Your task to perform on an android device: Open notification settings Image 0: 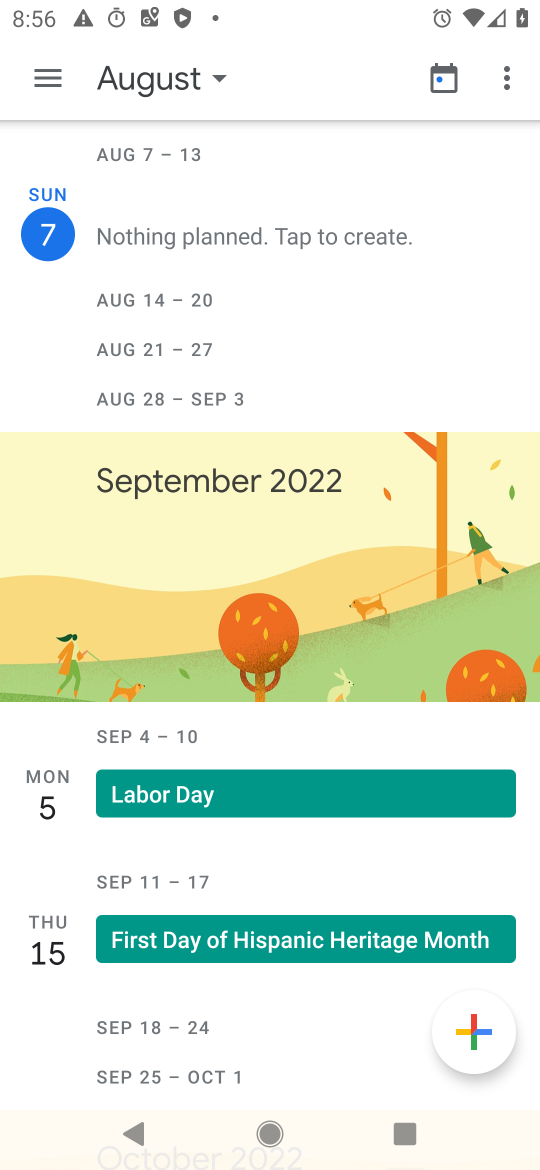
Step 0: press home button
Your task to perform on an android device: Open notification settings Image 1: 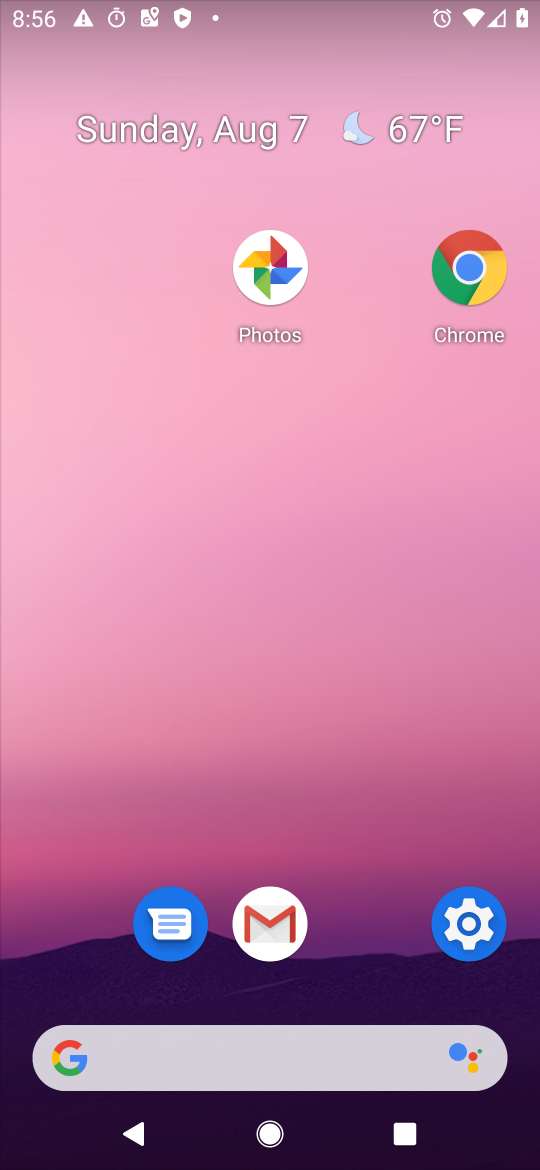
Step 1: drag from (385, 785) to (416, 300)
Your task to perform on an android device: Open notification settings Image 2: 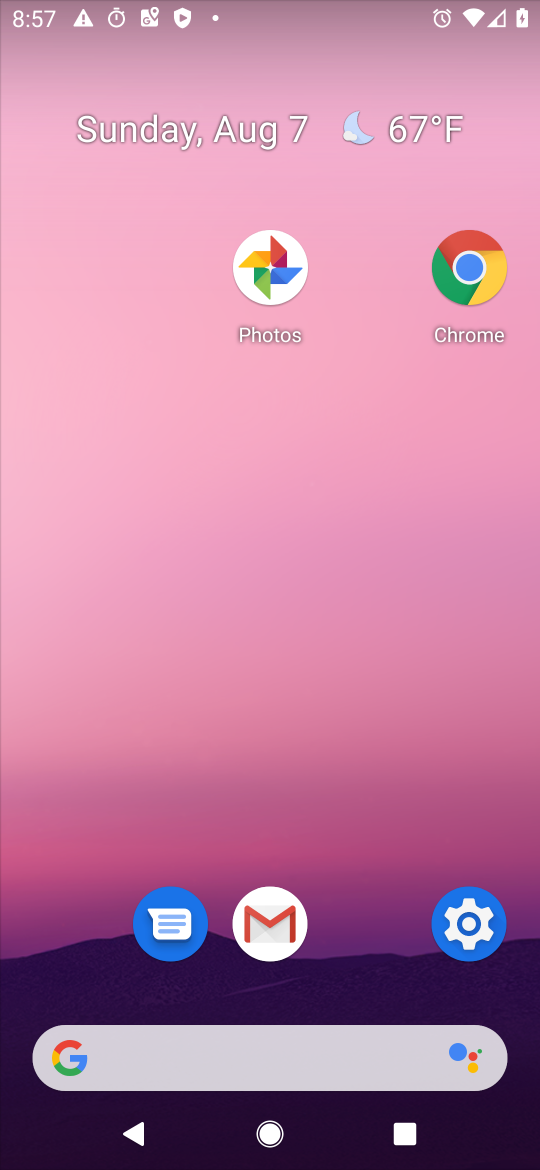
Step 2: click (463, 939)
Your task to perform on an android device: Open notification settings Image 3: 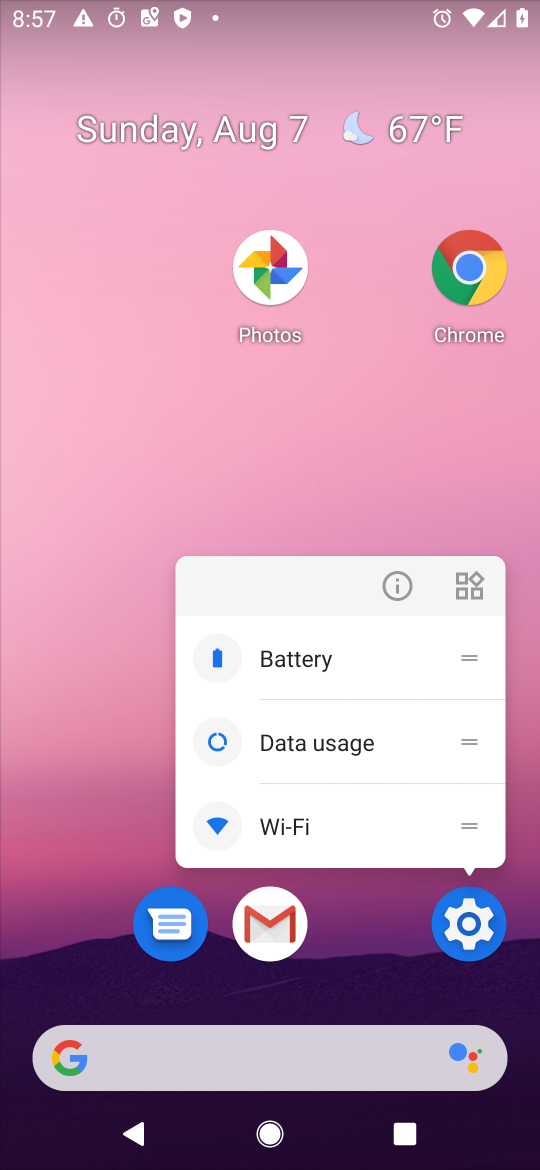
Step 3: click (472, 924)
Your task to perform on an android device: Open notification settings Image 4: 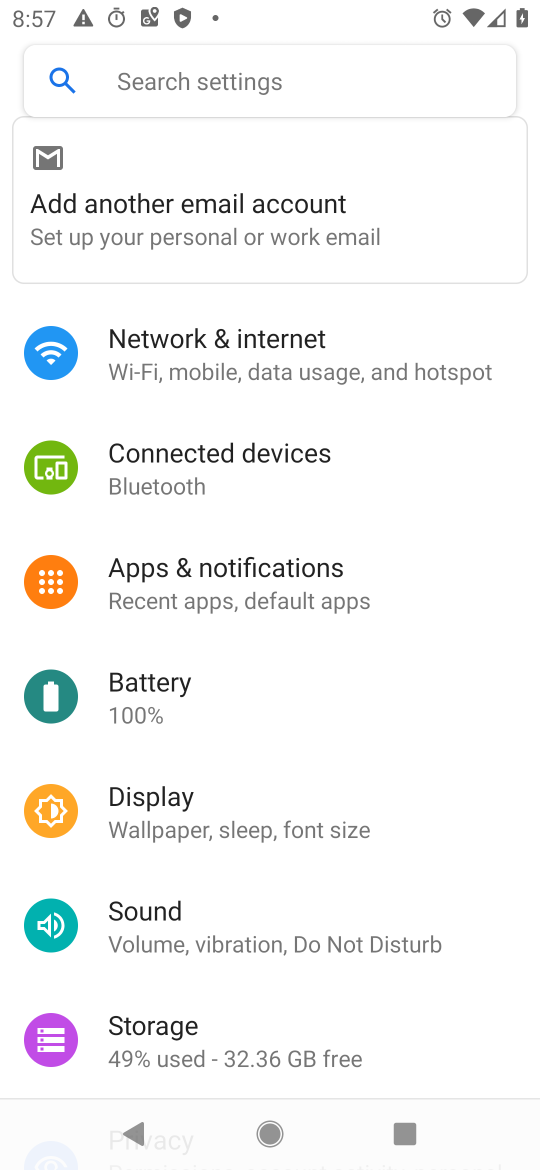
Step 4: click (239, 68)
Your task to perform on an android device: Open notification settings Image 5: 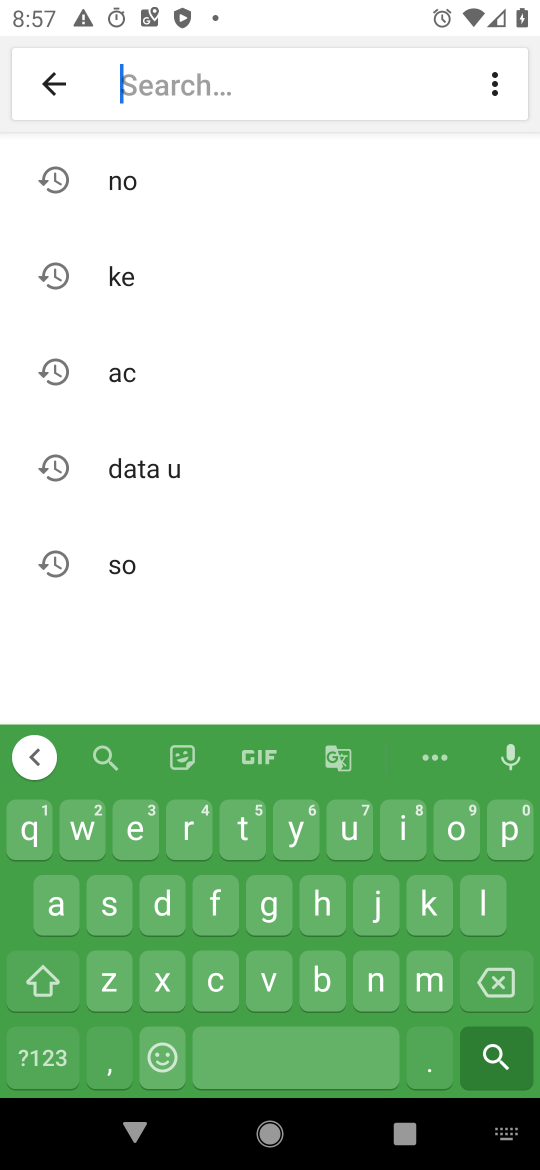
Step 5: click (168, 180)
Your task to perform on an android device: Open notification settings Image 6: 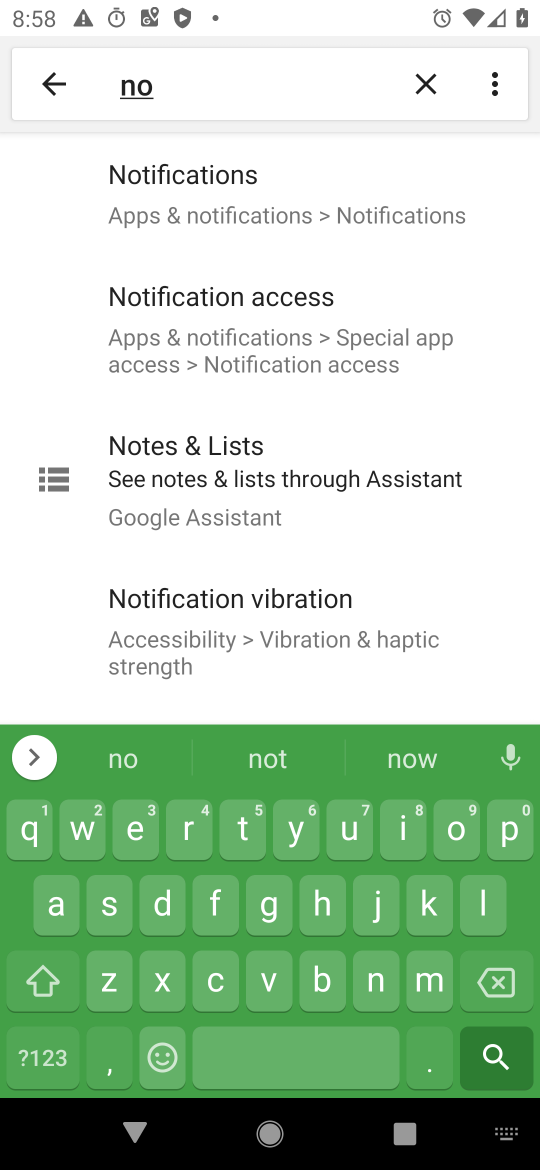
Step 6: click (261, 215)
Your task to perform on an android device: Open notification settings Image 7: 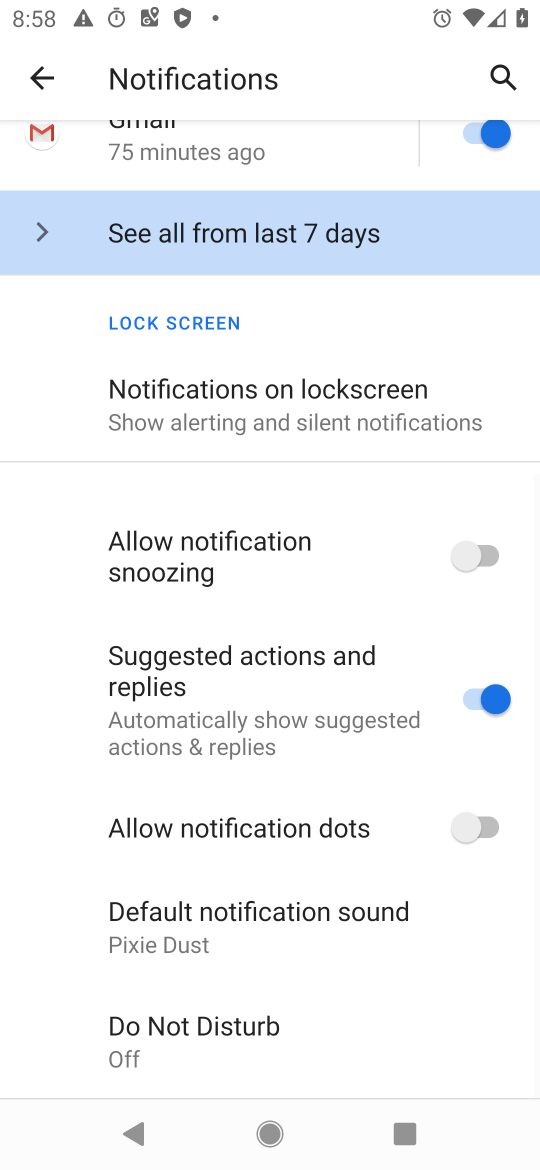
Step 7: click (242, 436)
Your task to perform on an android device: Open notification settings Image 8: 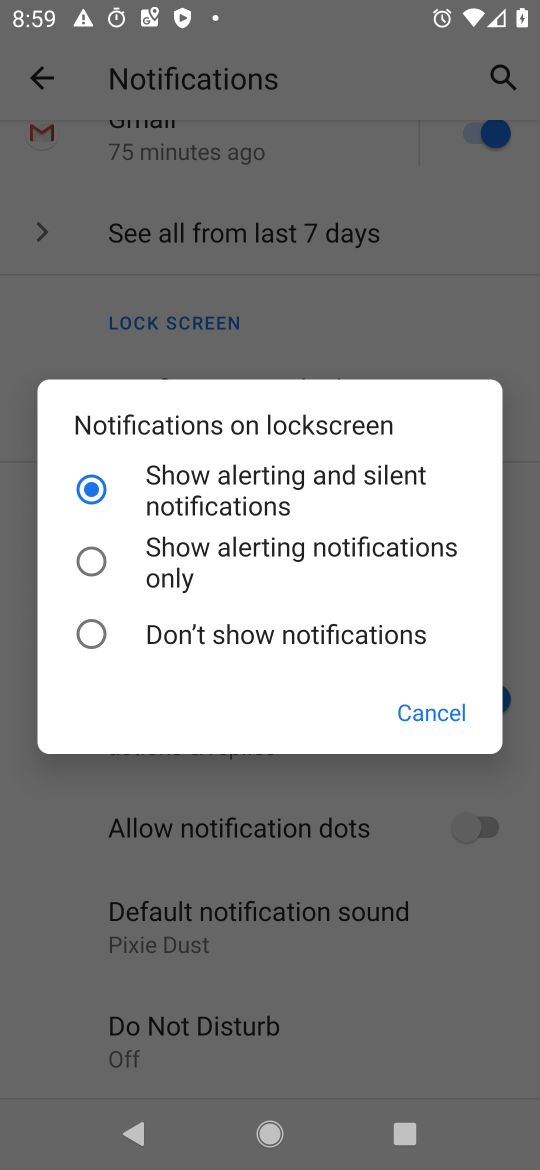
Step 8: task complete